Your task to perform on an android device: Search for seafood restaurants on Google Maps Image 0: 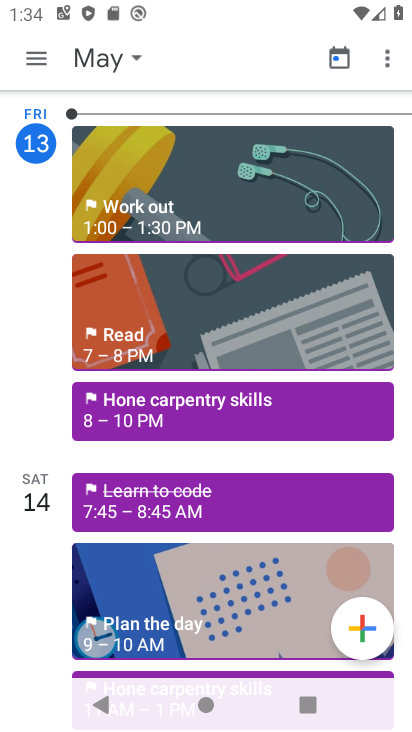
Step 0: press home button
Your task to perform on an android device: Search for seafood restaurants on Google Maps Image 1: 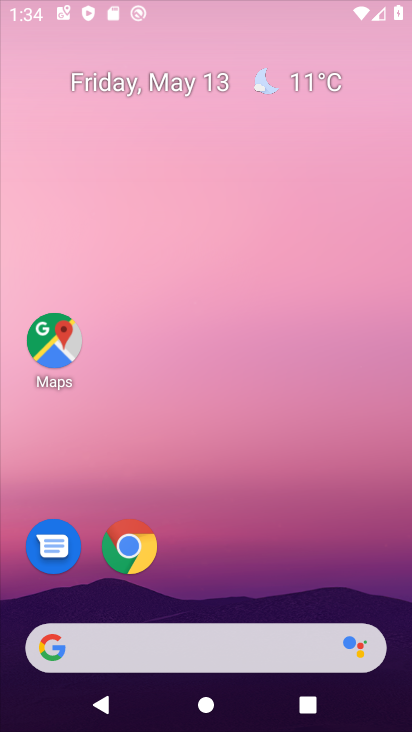
Step 1: drag from (210, 649) to (220, 109)
Your task to perform on an android device: Search for seafood restaurants on Google Maps Image 2: 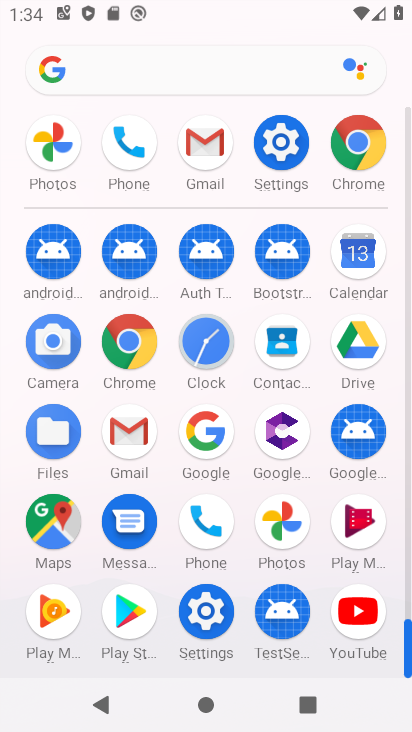
Step 2: click (70, 529)
Your task to perform on an android device: Search for seafood restaurants on Google Maps Image 3: 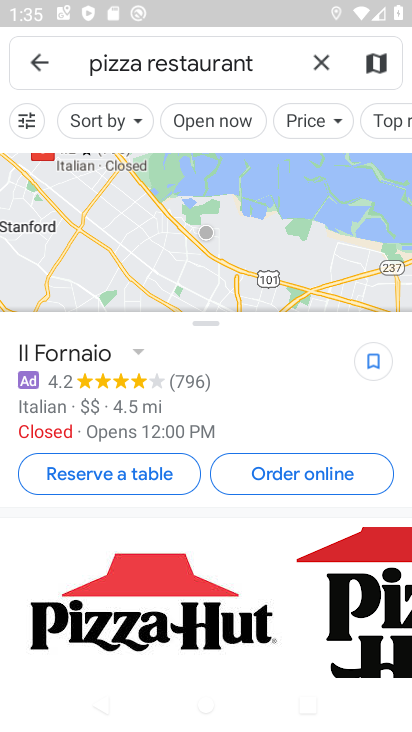
Step 3: click (321, 63)
Your task to perform on an android device: Search for seafood restaurants on Google Maps Image 4: 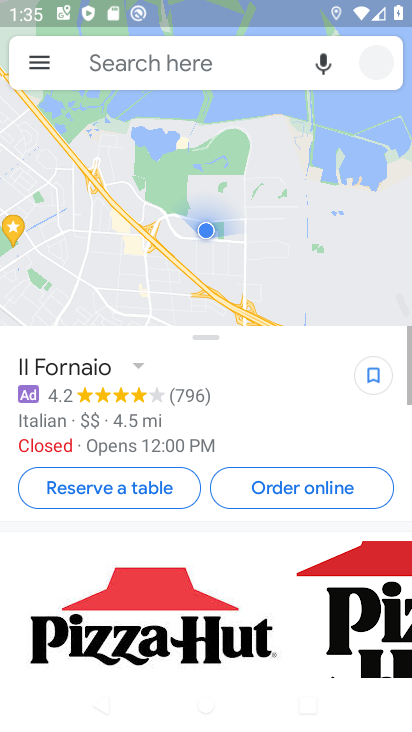
Step 4: click (328, 63)
Your task to perform on an android device: Search for seafood restaurants on Google Maps Image 5: 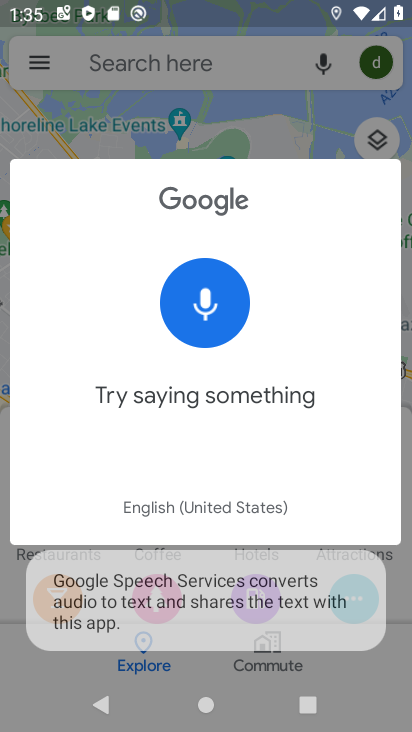
Step 5: click (245, 57)
Your task to perform on an android device: Search for seafood restaurants on Google Maps Image 6: 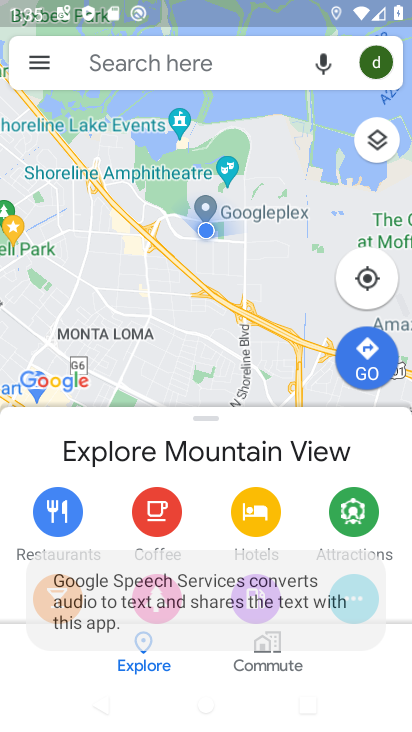
Step 6: click (213, 73)
Your task to perform on an android device: Search for seafood restaurants on Google Maps Image 7: 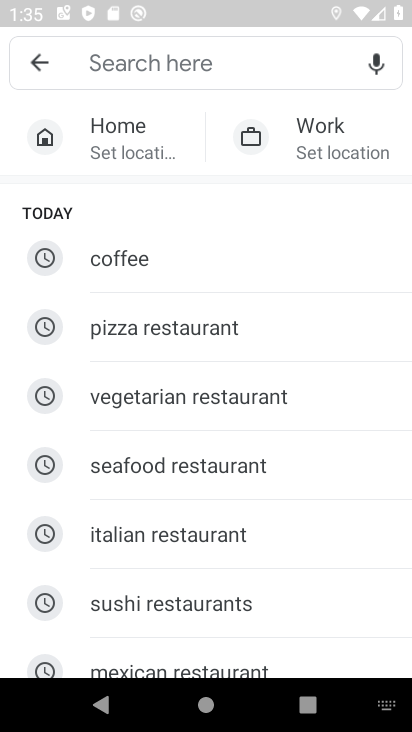
Step 7: click (185, 475)
Your task to perform on an android device: Search for seafood restaurants on Google Maps Image 8: 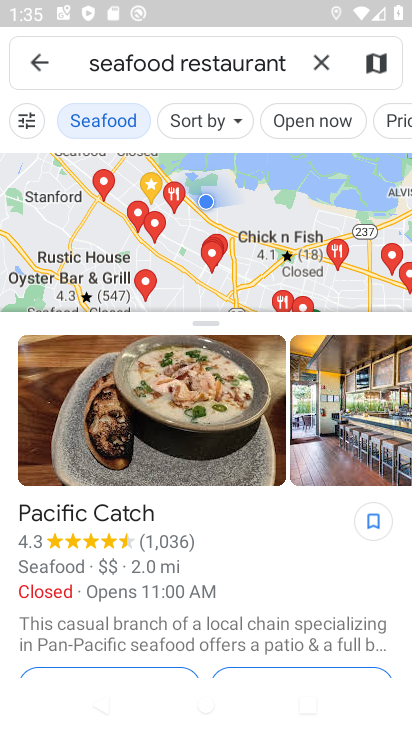
Step 8: task complete